Your task to perform on an android device: turn off data saver in the chrome app Image 0: 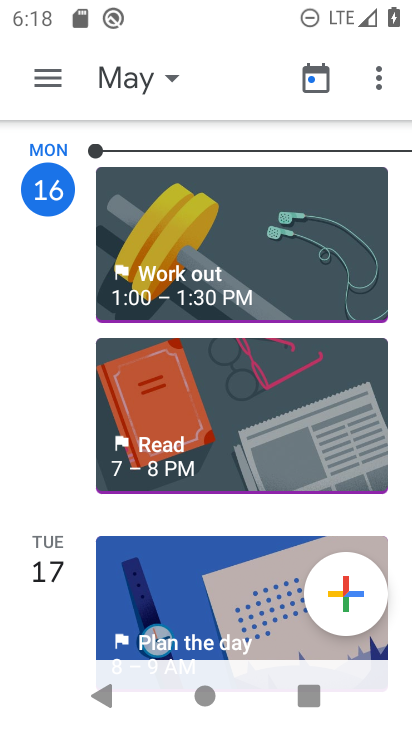
Step 0: press home button
Your task to perform on an android device: turn off data saver in the chrome app Image 1: 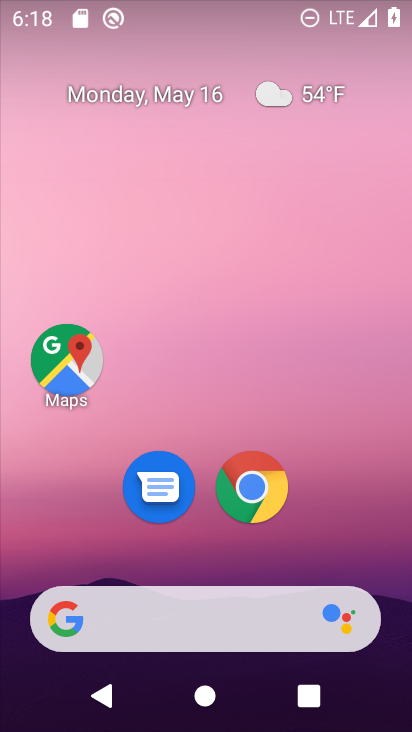
Step 1: click (261, 494)
Your task to perform on an android device: turn off data saver in the chrome app Image 2: 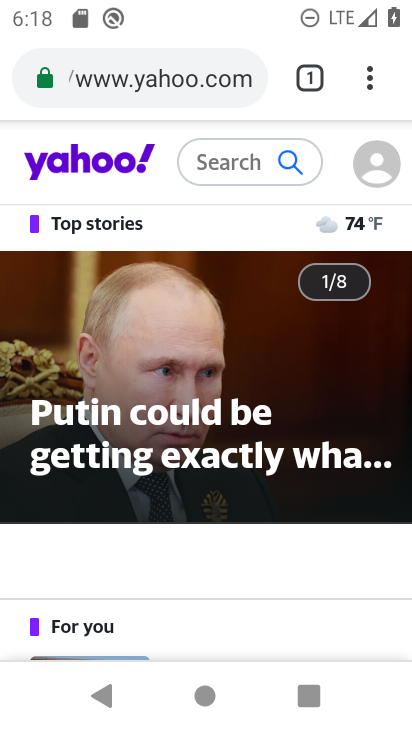
Step 2: click (367, 84)
Your task to perform on an android device: turn off data saver in the chrome app Image 3: 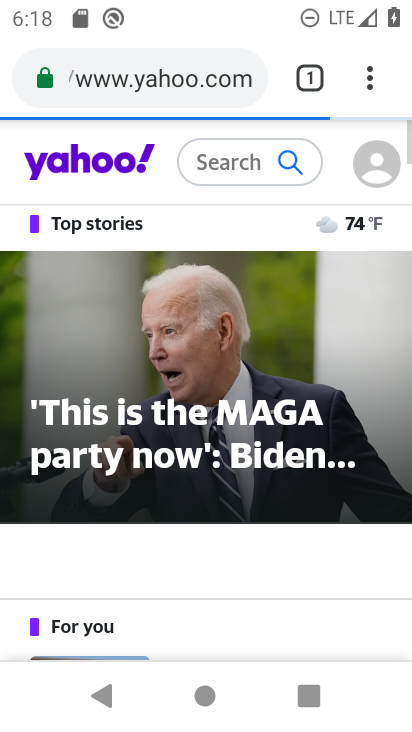
Step 3: drag from (206, 630) to (208, 293)
Your task to perform on an android device: turn off data saver in the chrome app Image 4: 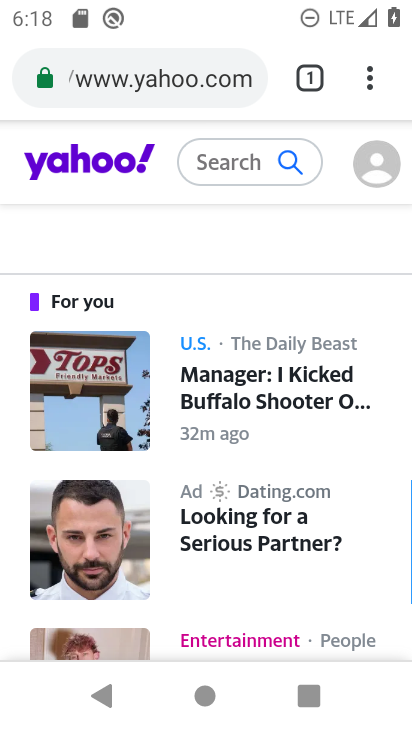
Step 4: click (369, 75)
Your task to perform on an android device: turn off data saver in the chrome app Image 5: 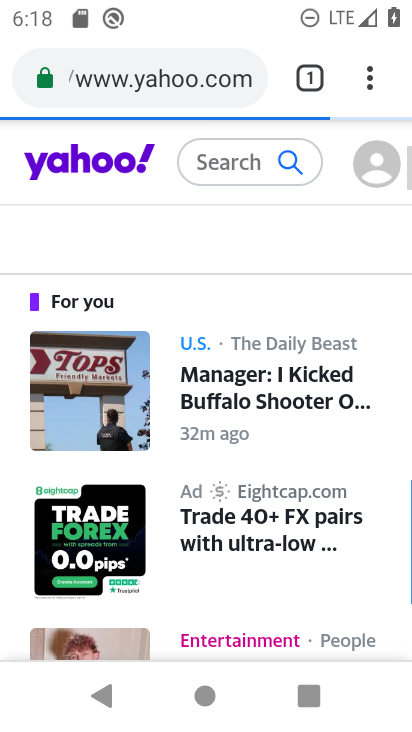
Step 5: drag from (211, 625) to (206, 350)
Your task to perform on an android device: turn off data saver in the chrome app Image 6: 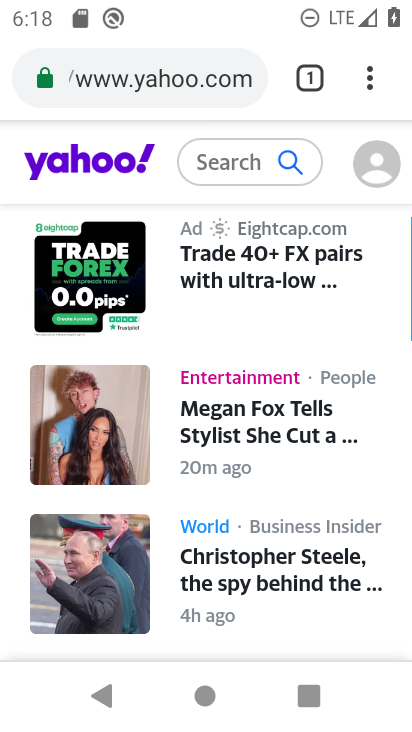
Step 6: drag from (206, 624) to (209, 337)
Your task to perform on an android device: turn off data saver in the chrome app Image 7: 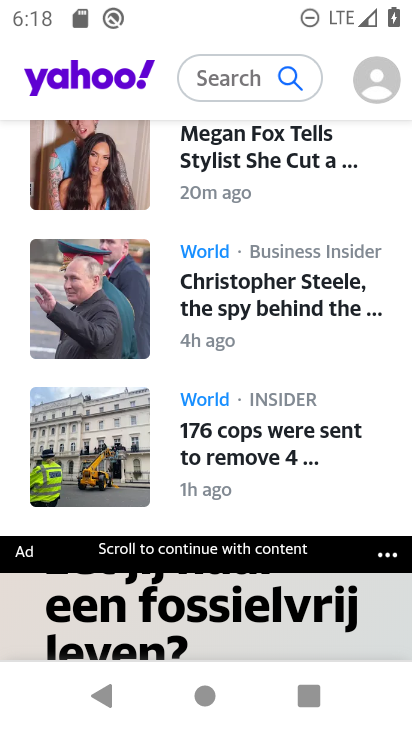
Step 7: drag from (315, 170) to (279, 482)
Your task to perform on an android device: turn off data saver in the chrome app Image 8: 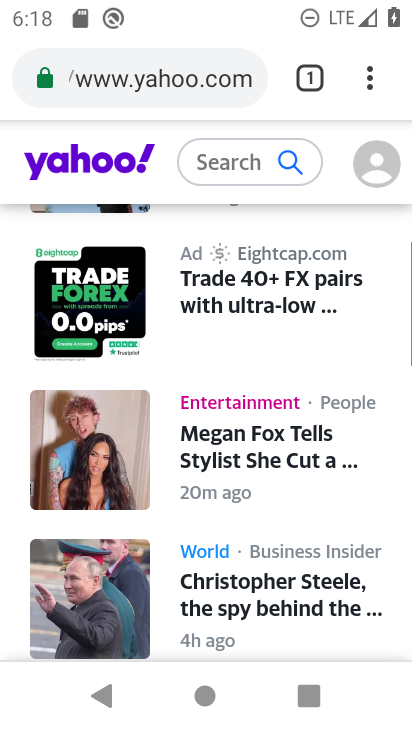
Step 8: drag from (276, 218) to (238, 556)
Your task to perform on an android device: turn off data saver in the chrome app Image 9: 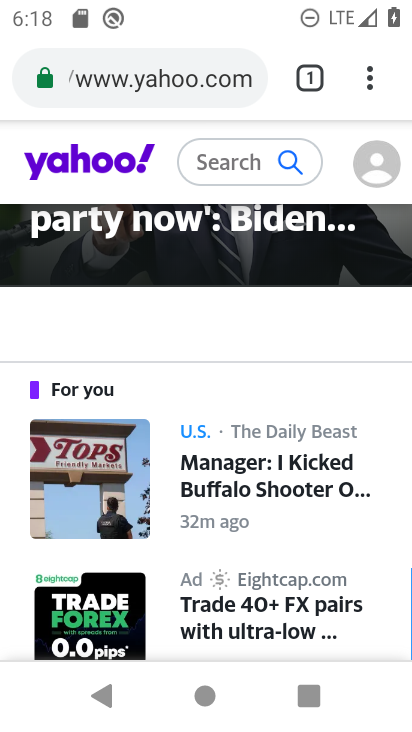
Step 9: drag from (217, 246) to (231, 598)
Your task to perform on an android device: turn off data saver in the chrome app Image 10: 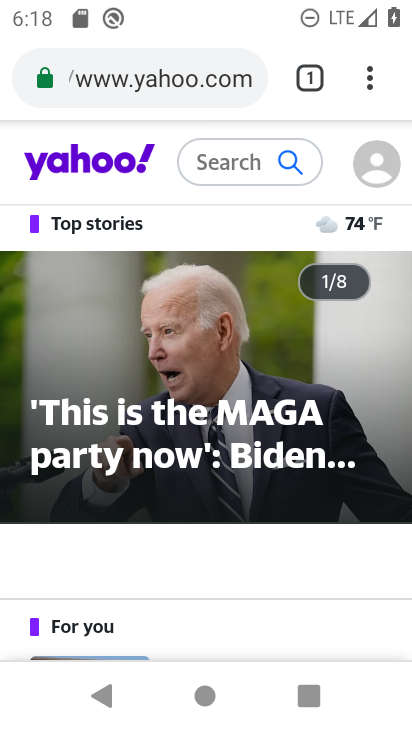
Step 10: click (370, 79)
Your task to perform on an android device: turn off data saver in the chrome app Image 11: 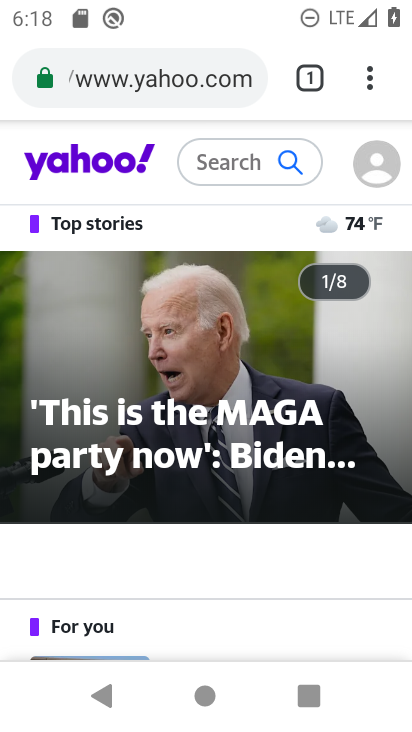
Step 11: click (371, 82)
Your task to perform on an android device: turn off data saver in the chrome app Image 12: 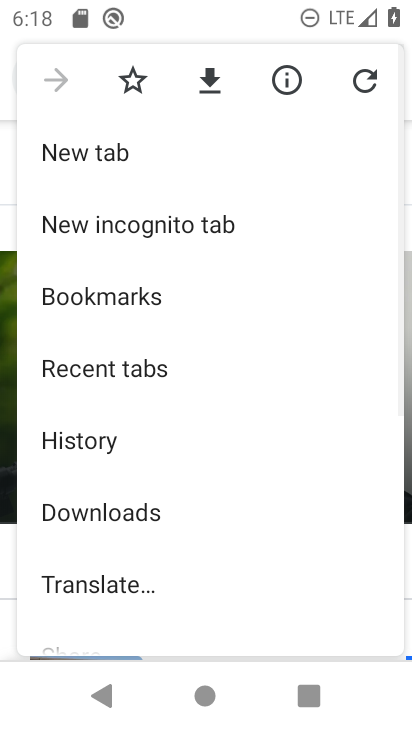
Step 12: drag from (179, 587) to (179, 289)
Your task to perform on an android device: turn off data saver in the chrome app Image 13: 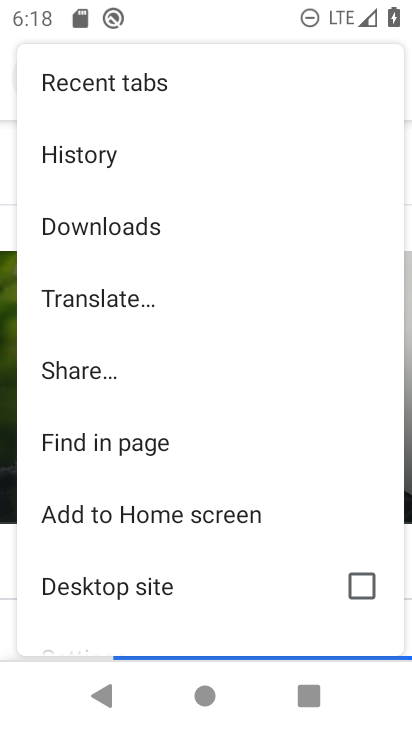
Step 13: drag from (231, 619) to (223, 291)
Your task to perform on an android device: turn off data saver in the chrome app Image 14: 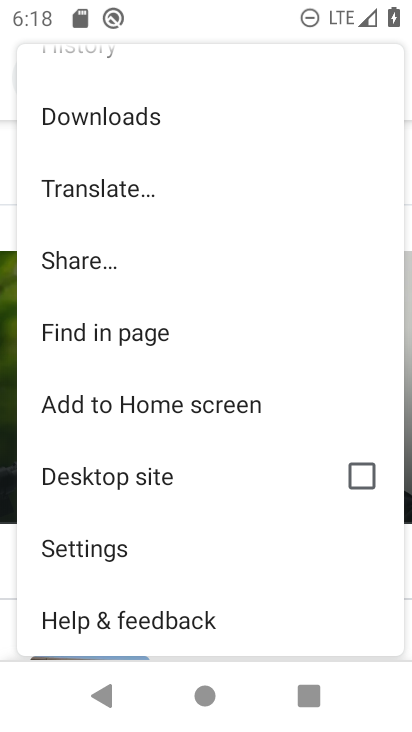
Step 14: click (97, 548)
Your task to perform on an android device: turn off data saver in the chrome app Image 15: 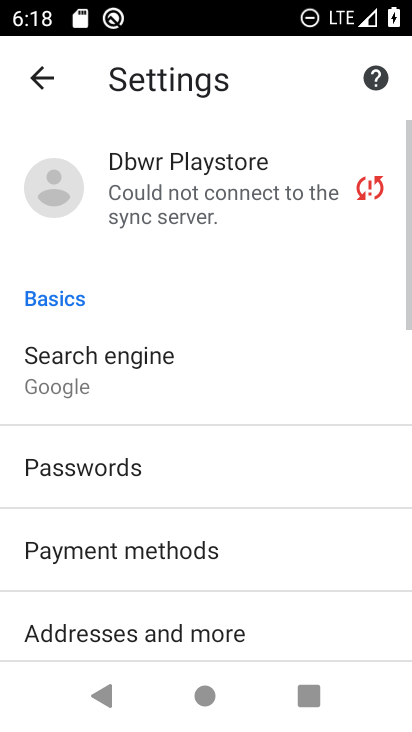
Step 15: drag from (114, 635) to (142, 295)
Your task to perform on an android device: turn off data saver in the chrome app Image 16: 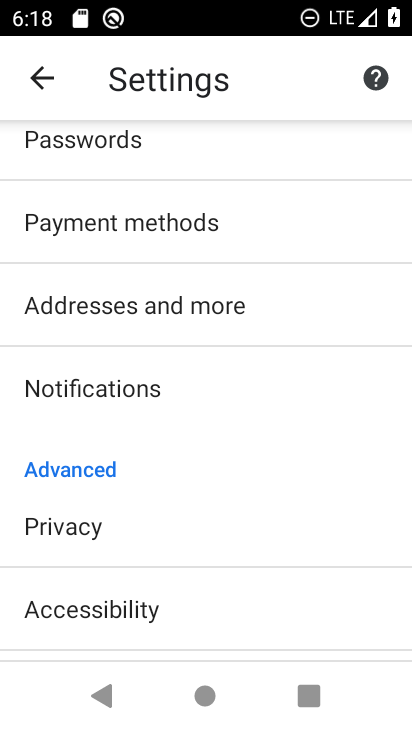
Step 16: drag from (161, 153) to (114, 529)
Your task to perform on an android device: turn off data saver in the chrome app Image 17: 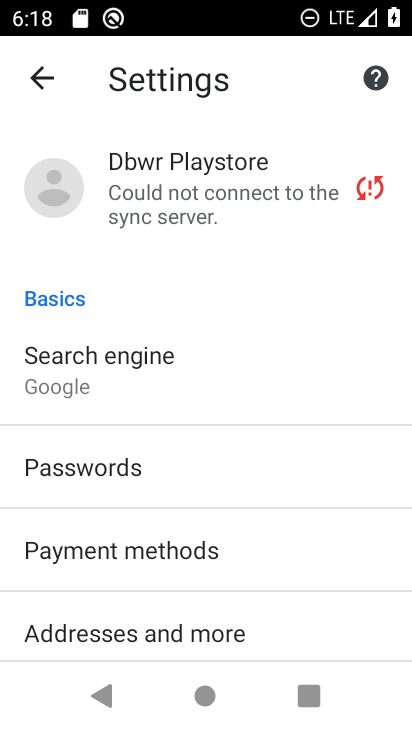
Step 17: drag from (120, 635) to (151, 405)
Your task to perform on an android device: turn off data saver in the chrome app Image 18: 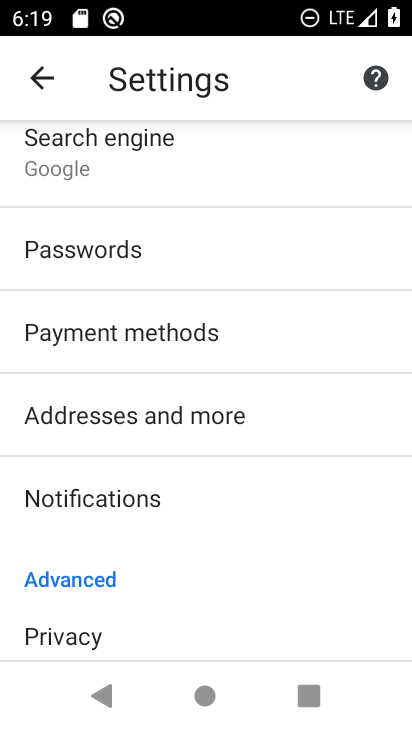
Step 18: drag from (90, 641) to (119, 474)
Your task to perform on an android device: turn off data saver in the chrome app Image 19: 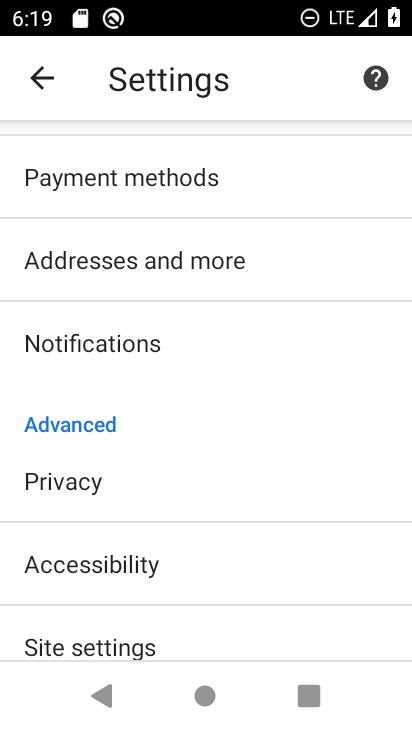
Step 19: drag from (91, 661) to (85, 410)
Your task to perform on an android device: turn off data saver in the chrome app Image 20: 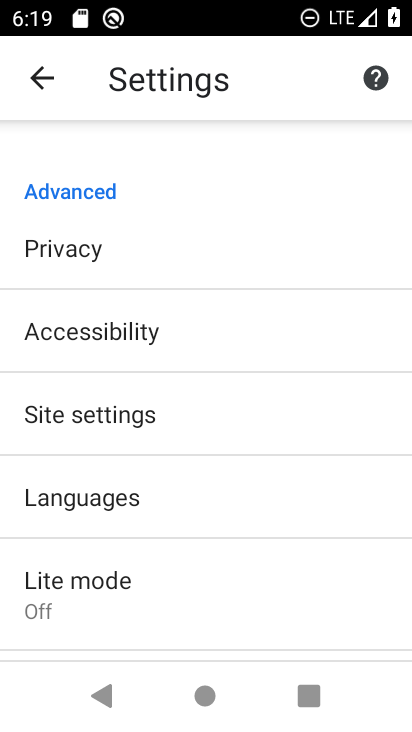
Step 20: drag from (113, 605) to (112, 398)
Your task to perform on an android device: turn off data saver in the chrome app Image 21: 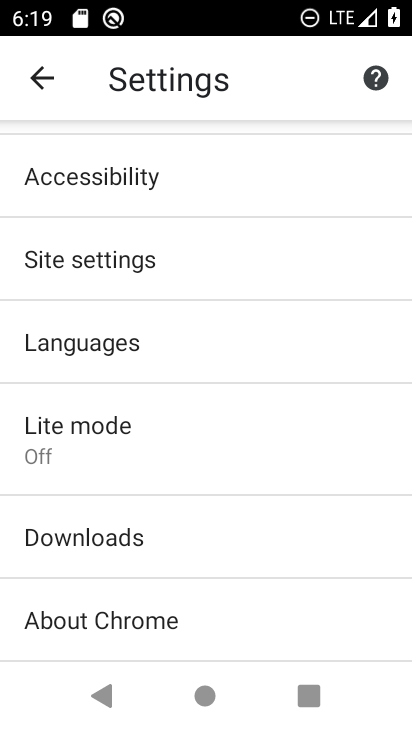
Step 21: click (54, 450)
Your task to perform on an android device: turn off data saver in the chrome app Image 22: 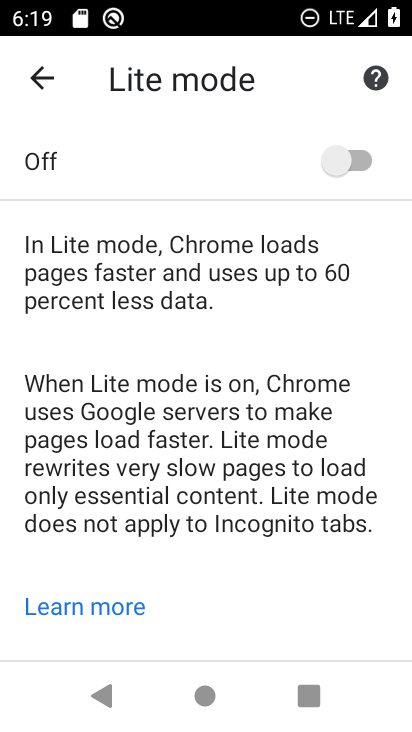
Step 22: task complete